Your task to perform on an android device: turn smart compose on in the gmail app Image 0: 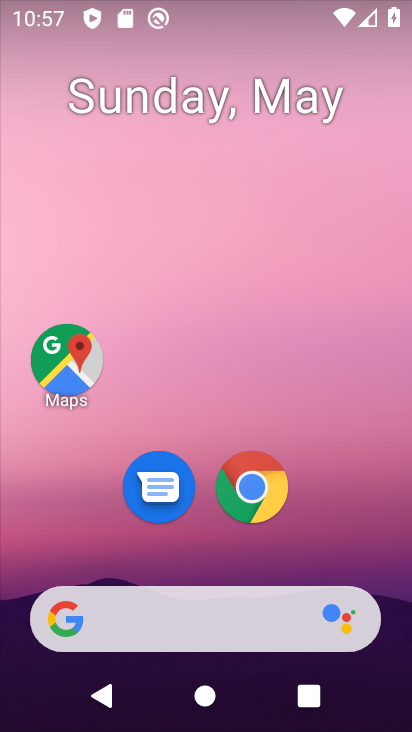
Step 0: drag from (329, 519) to (303, 26)
Your task to perform on an android device: turn smart compose on in the gmail app Image 1: 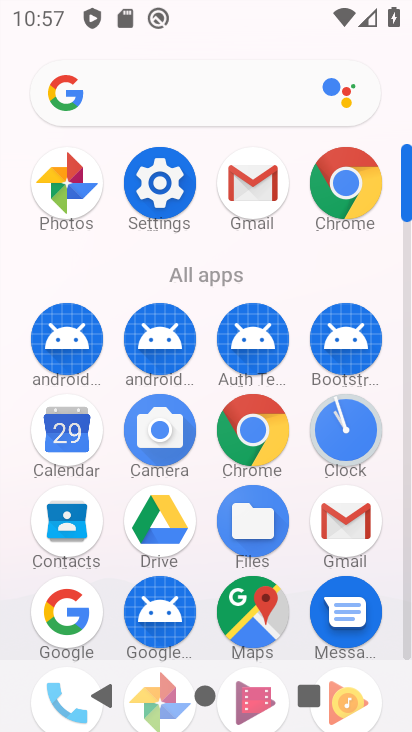
Step 1: click (360, 522)
Your task to perform on an android device: turn smart compose on in the gmail app Image 2: 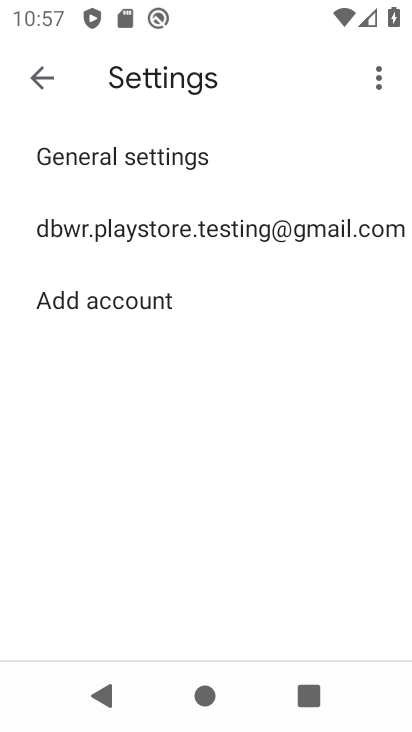
Step 2: click (222, 238)
Your task to perform on an android device: turn smart compose on in the gmail app Image 3: 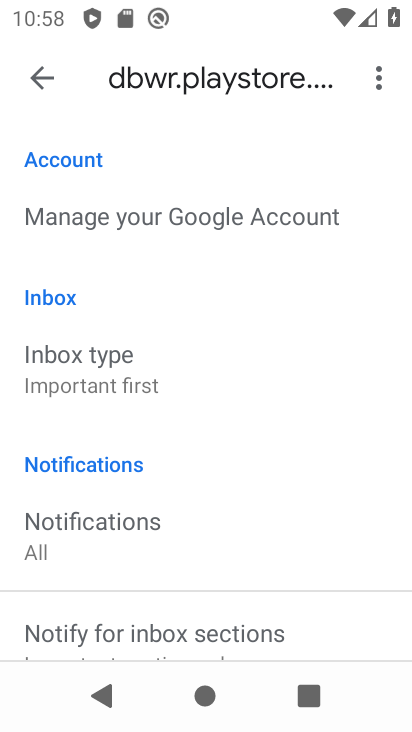
Step 3: task complete